Your task to perform on an android device: Check the weather Image 0: 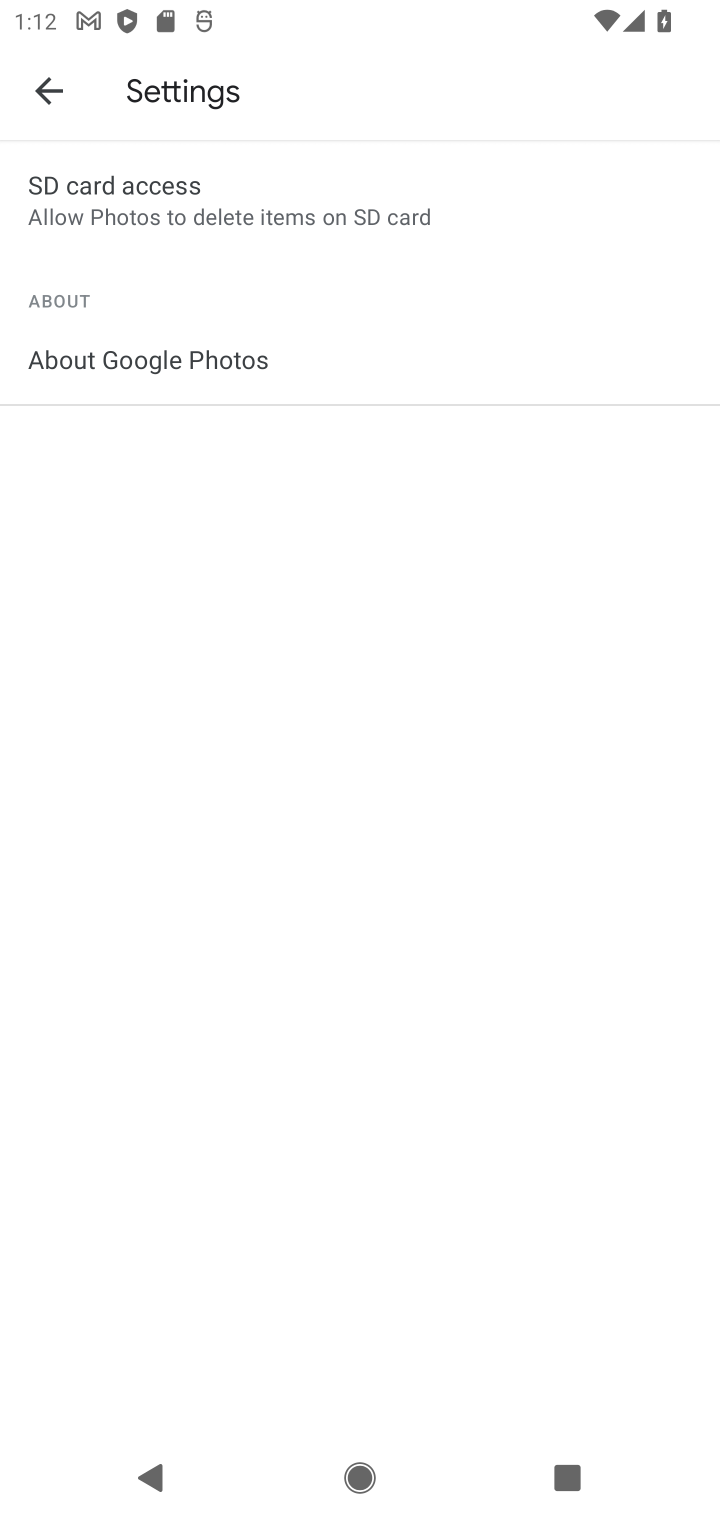
Step 0: press home button
Your task to perform on an android device: Check the weather Image 1: 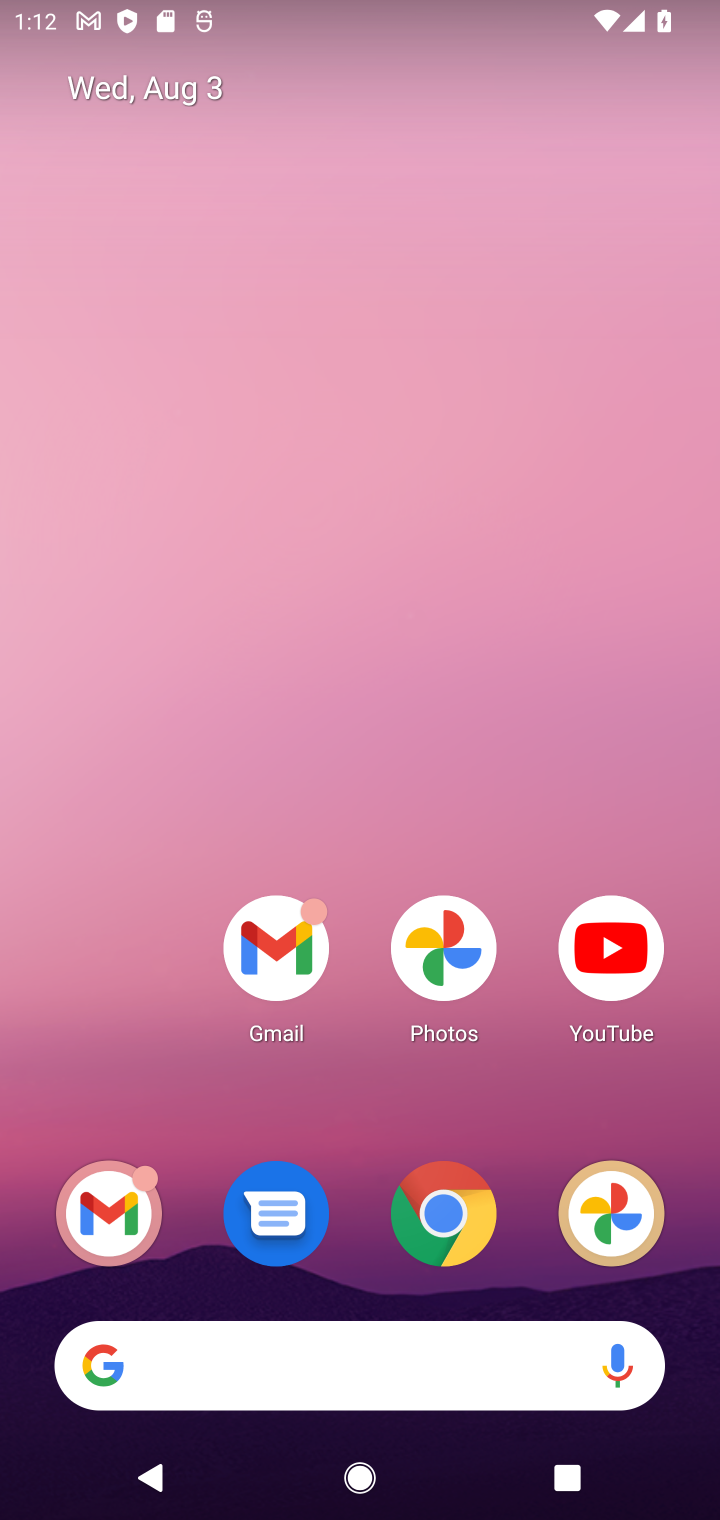
Step 1: drag from (87, 465) to (409, 529)
Your task to perform on an android device: Check the weather Image 2: 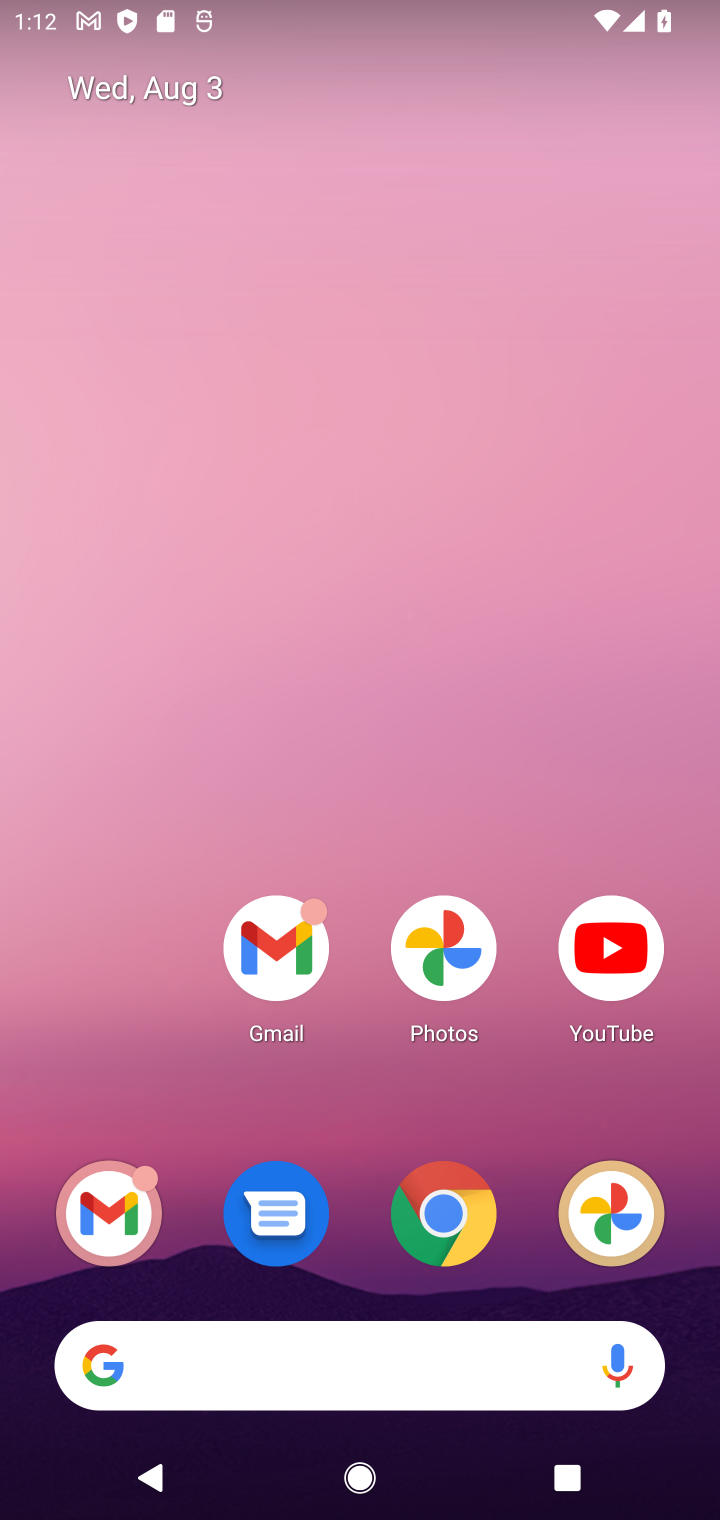
Step 2: drag from (94, 414) to (714, 580)
Your task to perform on an android device: Check the weather Image 3: 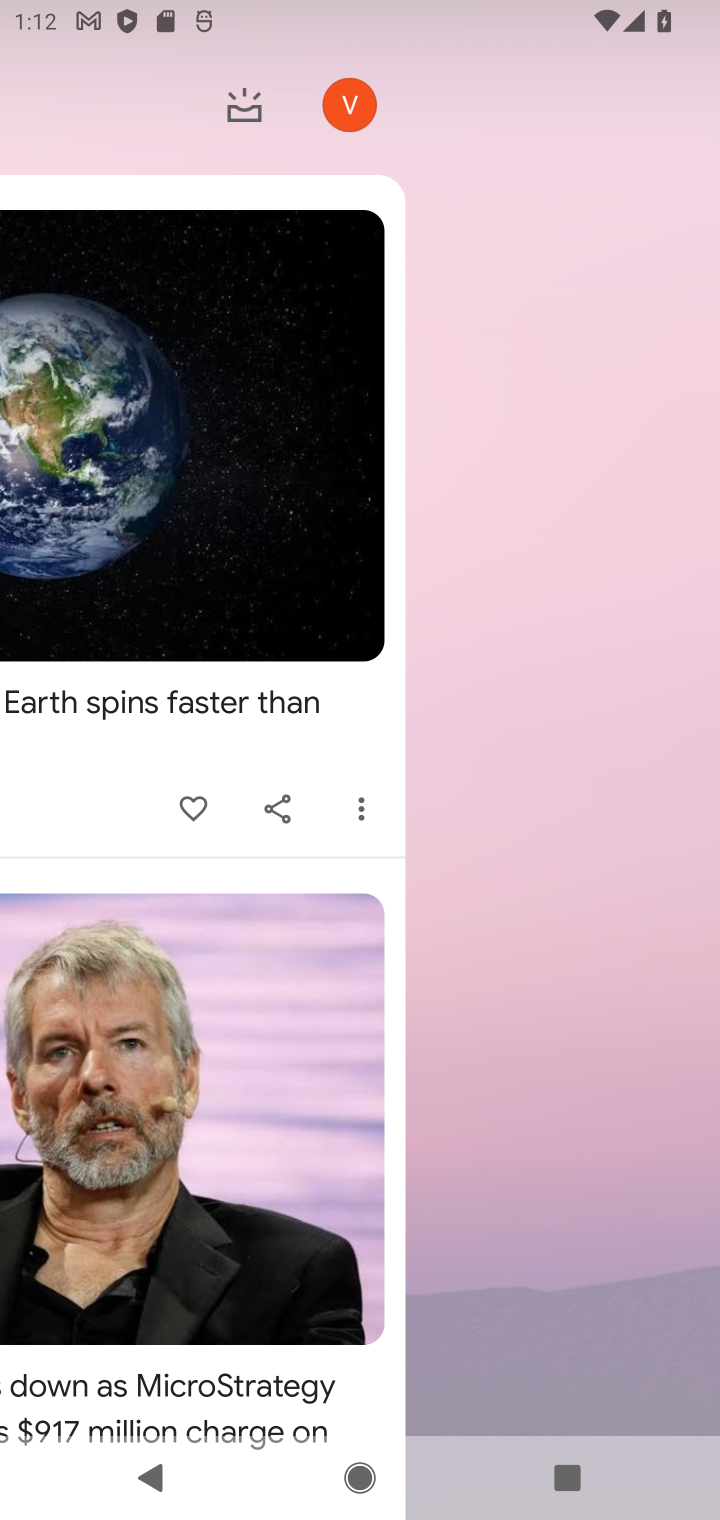
Step 3: drag from (94, 598) to (719, 666)
Your task to perform on an android device: Check the weather Image 4: 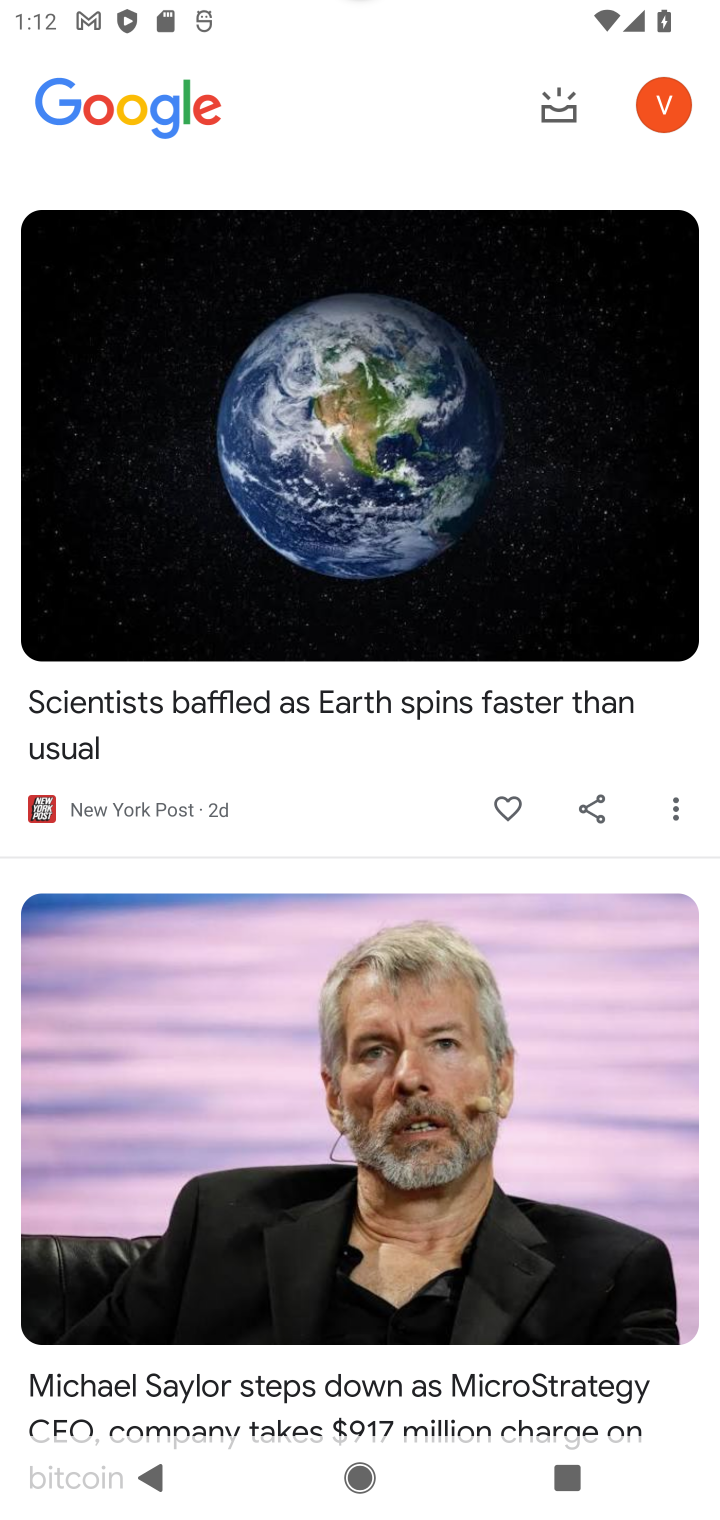
Step 4: press home button
Your task to perform on an android device: Check the weather Image 5: 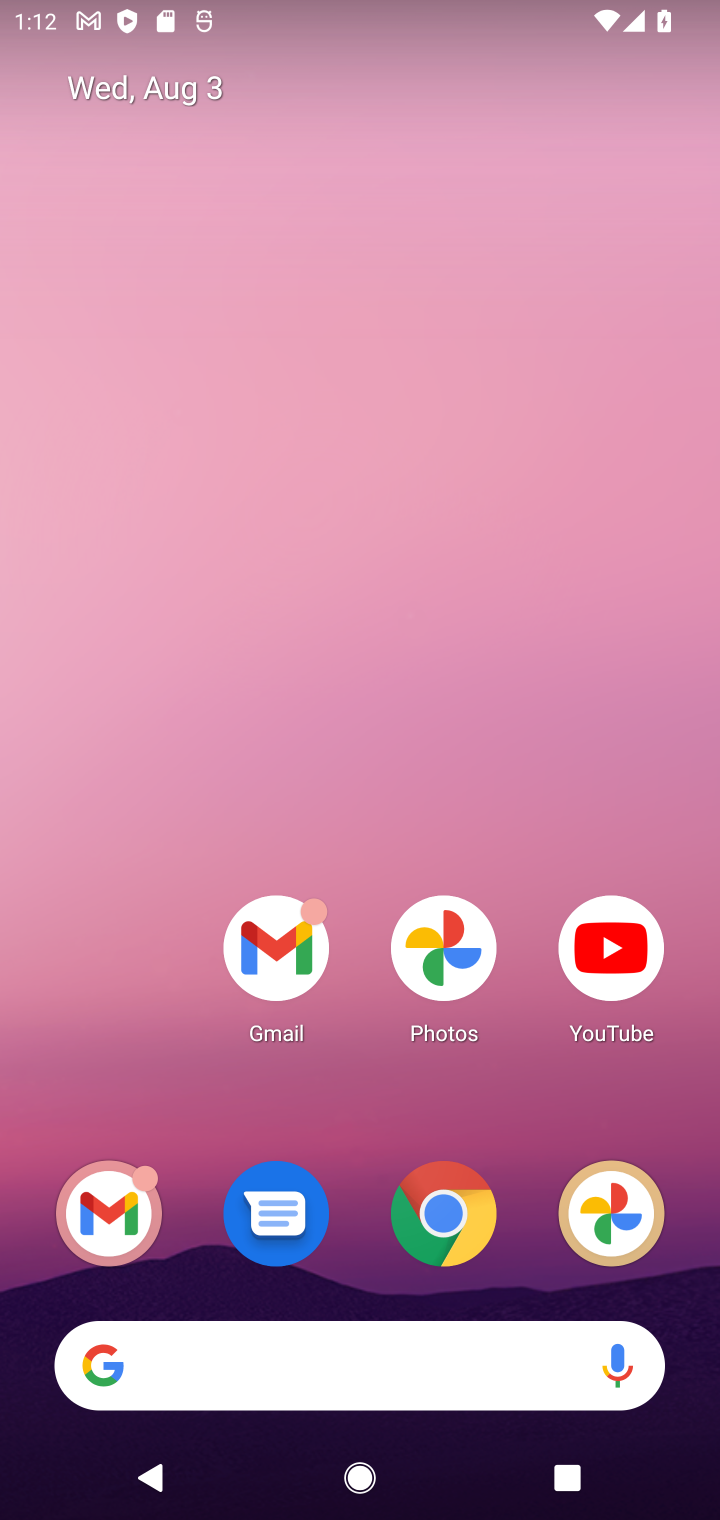
Step 5: drag from (267, 1369) to (286, 0)
Your task to perform on an android device: Check the weather Image 6: 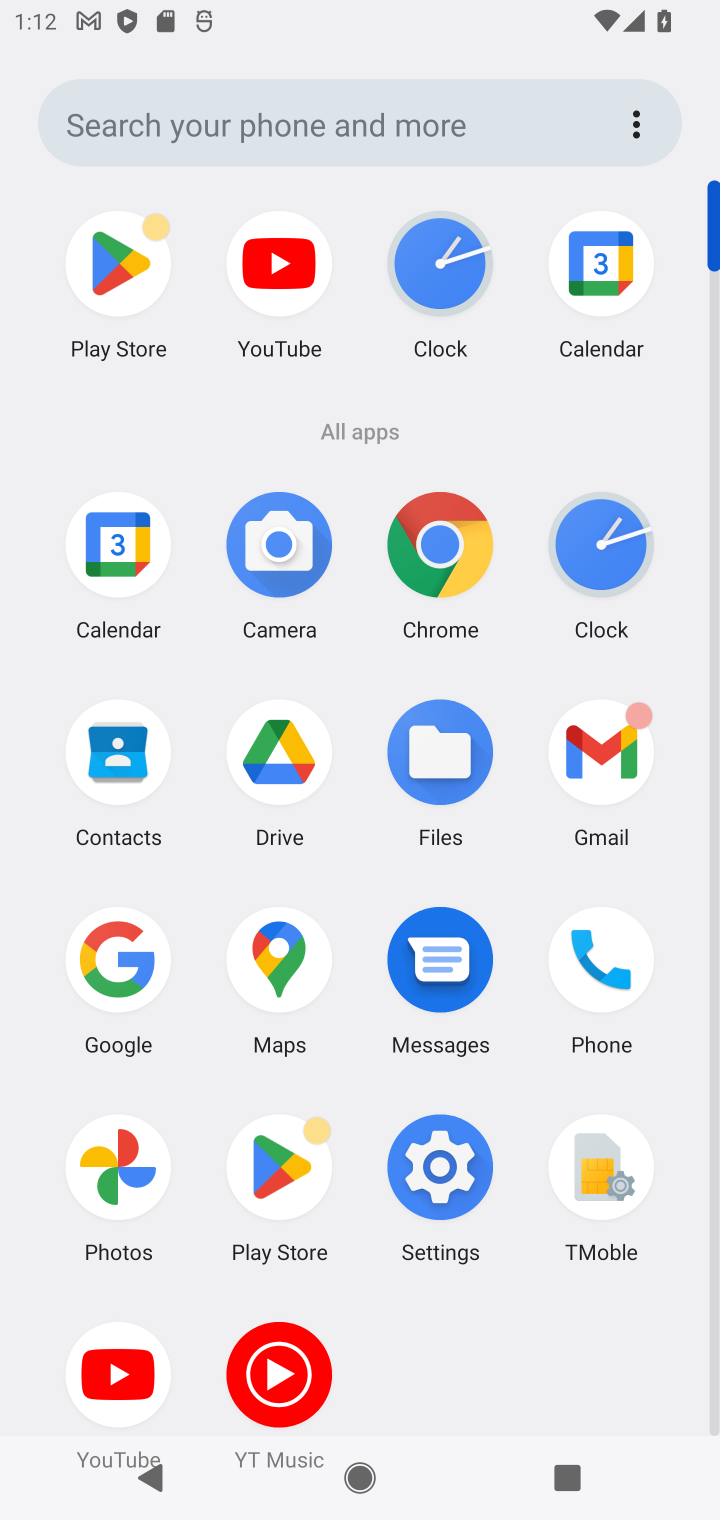
Step 6: click (432, 538)
Your task to perform on an android device: Check the weather Image 7: 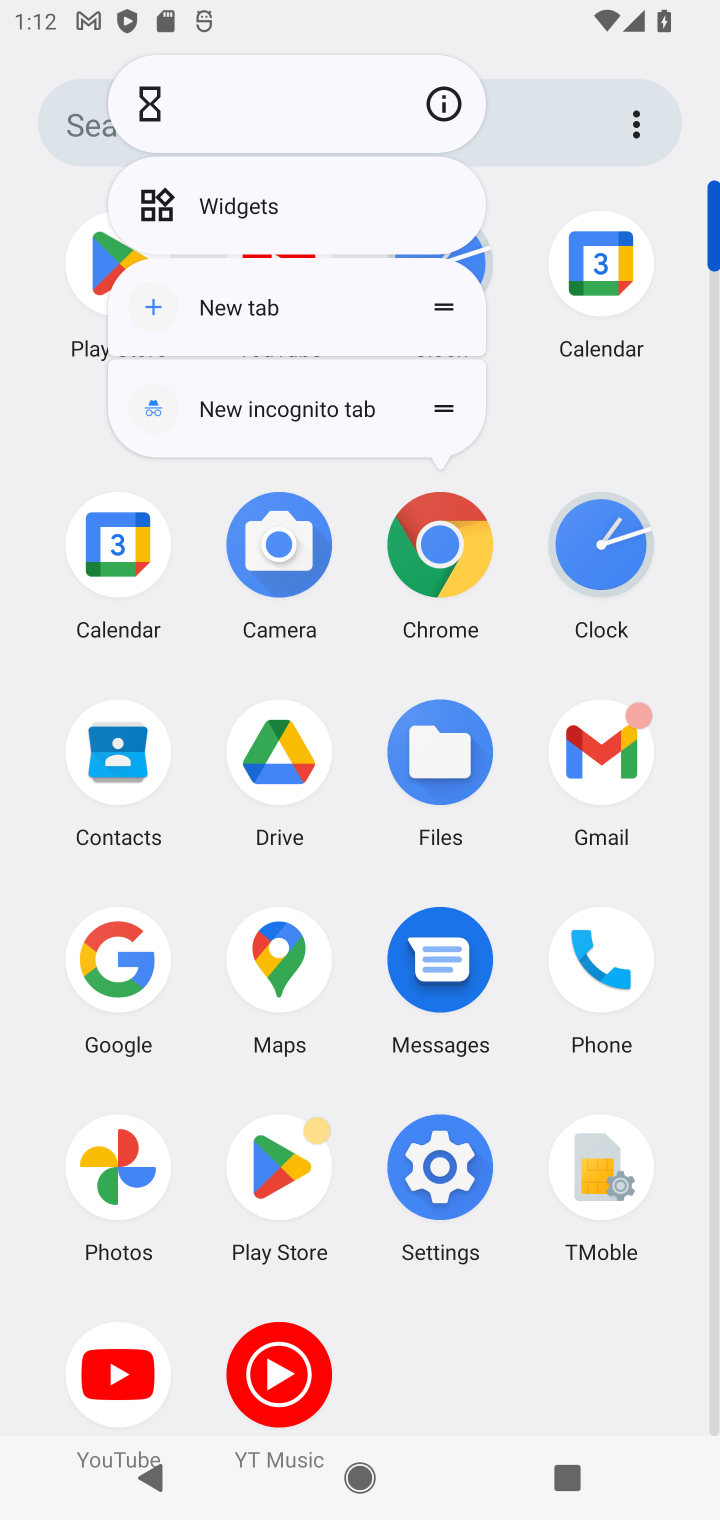
Step 7: click (461, 513)
Your task to perform on an android device: Check the weather Image 8: 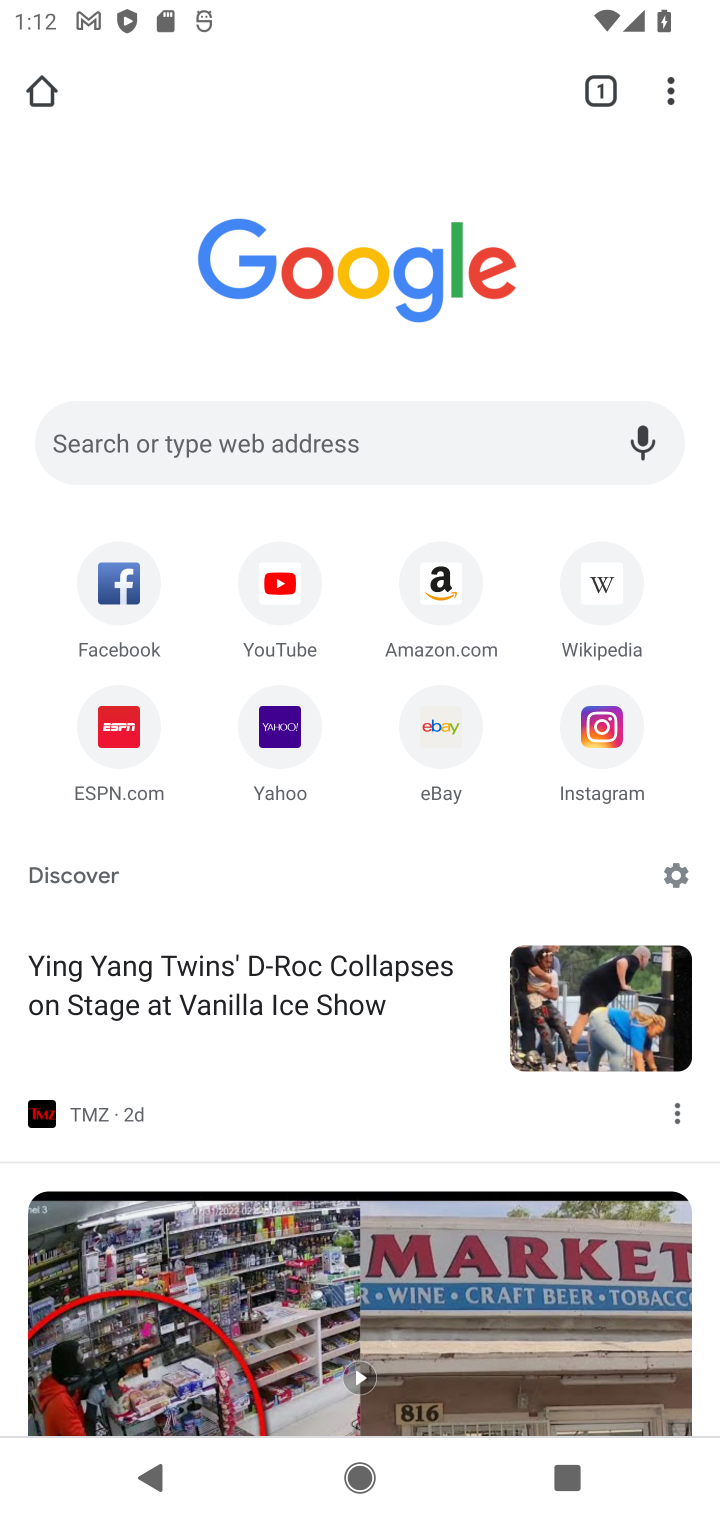
Step 8: click (320, 419)
Your task to perform on an android device: Check the weather Image 9: 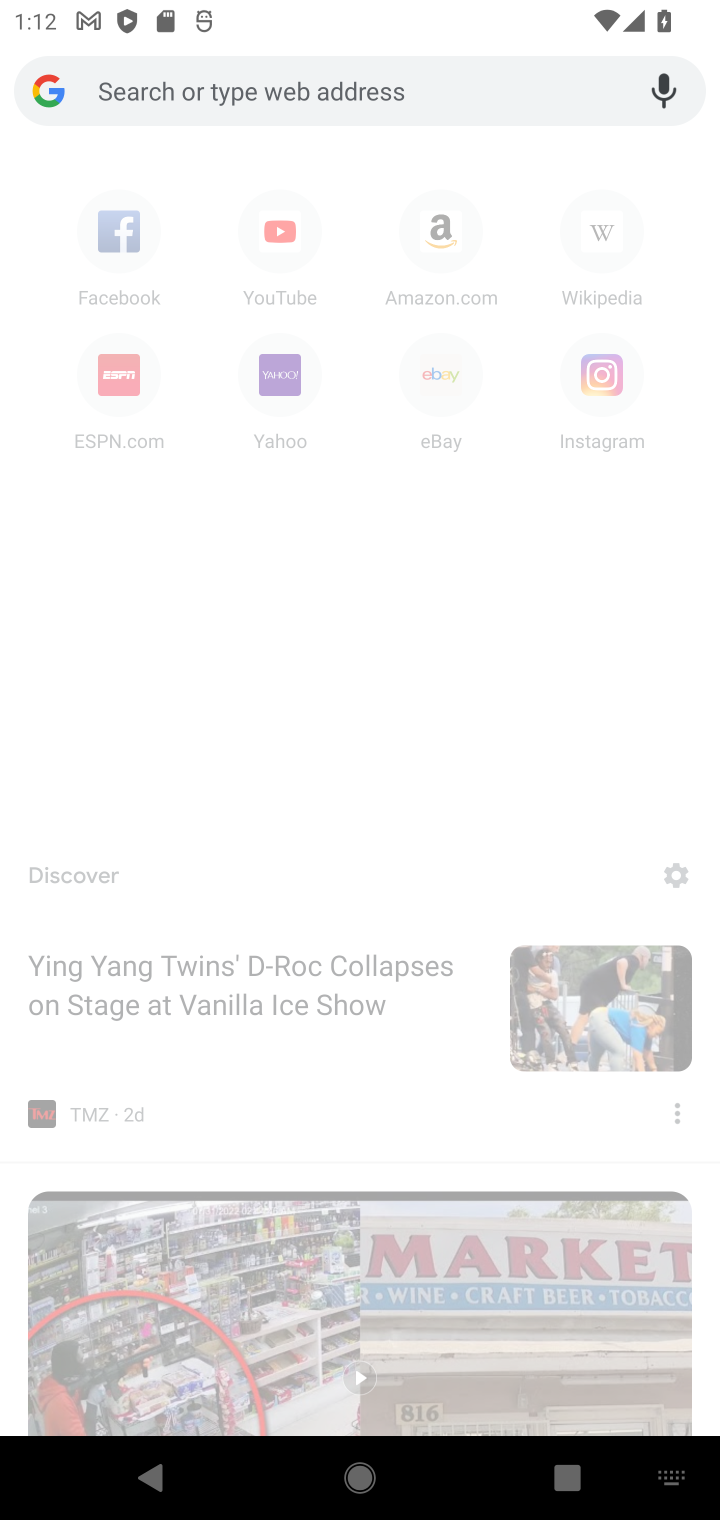
Step 9: type "check the weather"
Your task to perform on an android device: Check the weather Image 10: 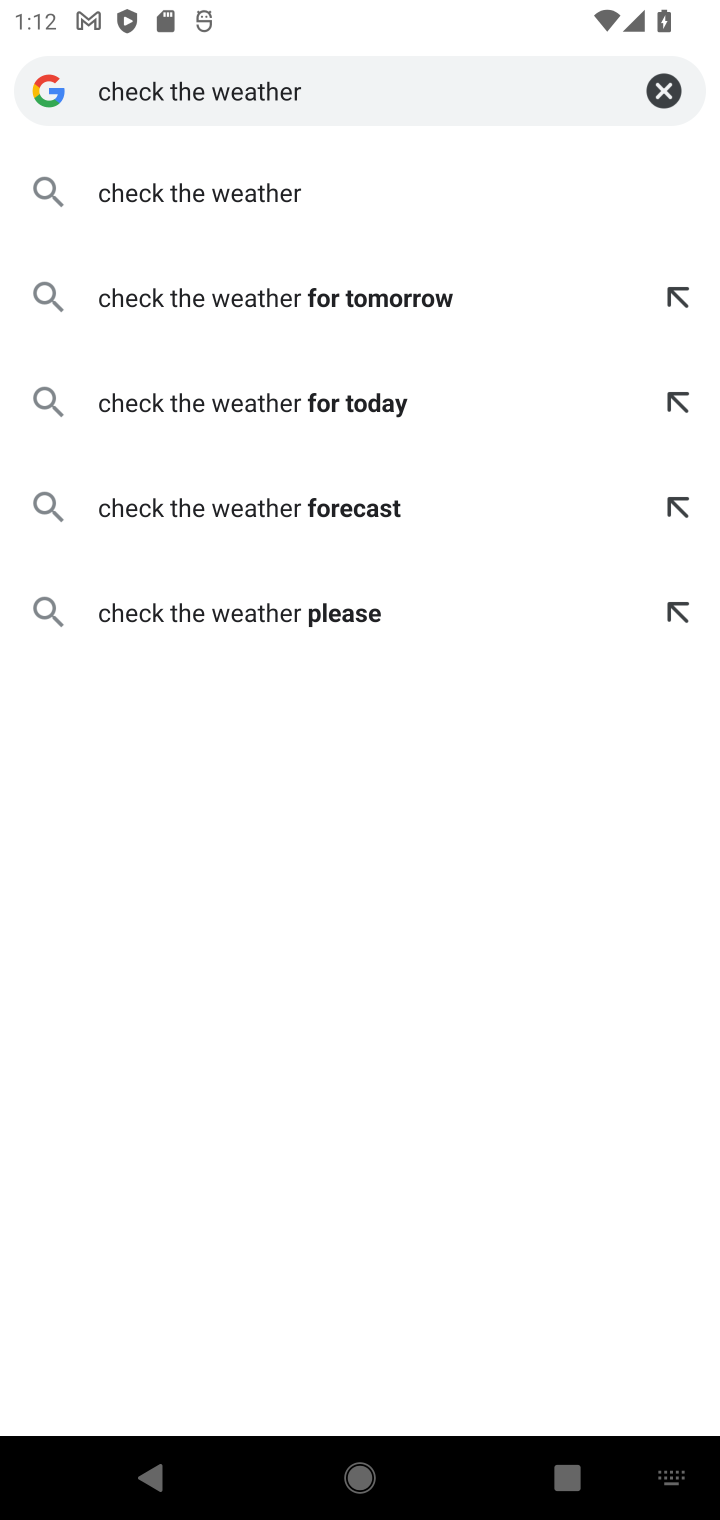
Step 10: click (250, 186)
Your task to perform on an android device: Check the weather Image 11: 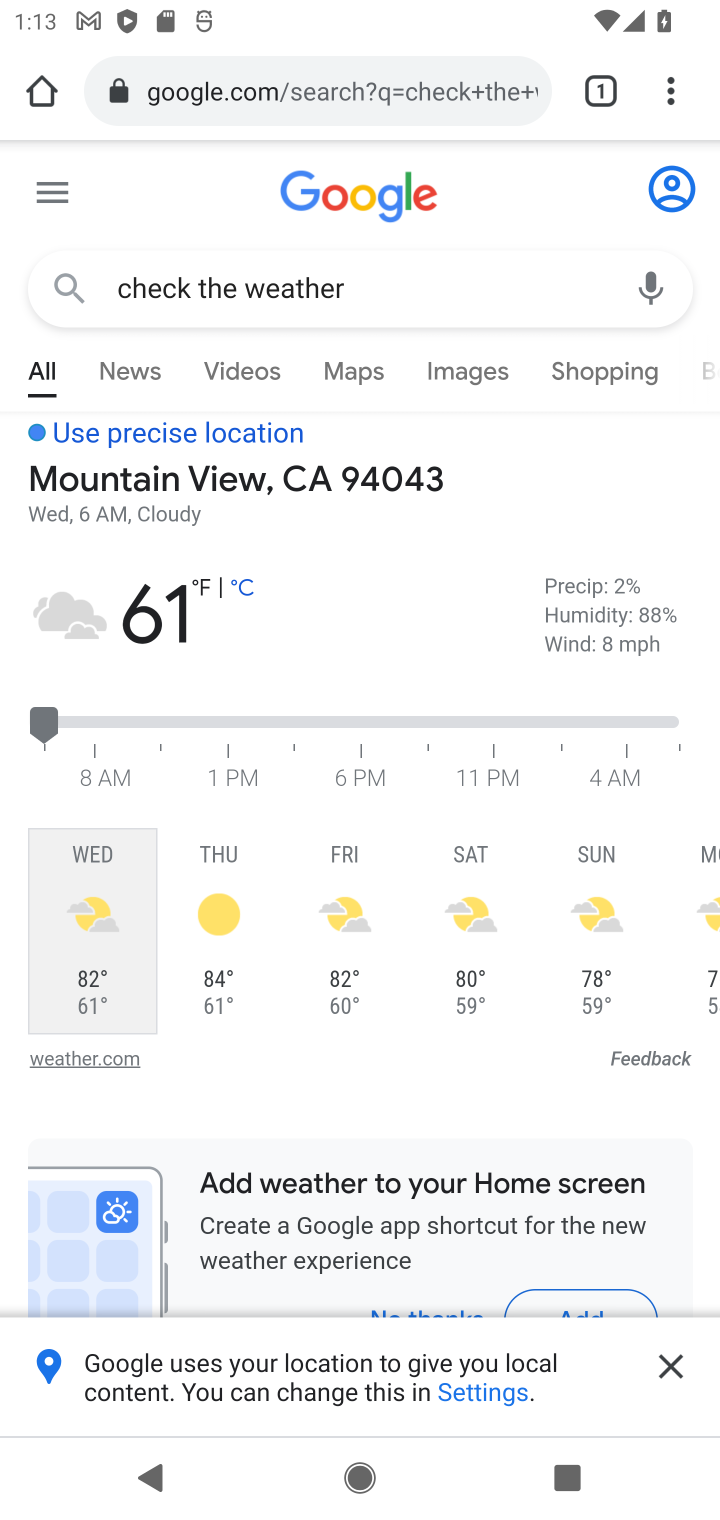
Step 11: task complete